Your task to perform on an android device: turn off translation in the chrome app Image 0: 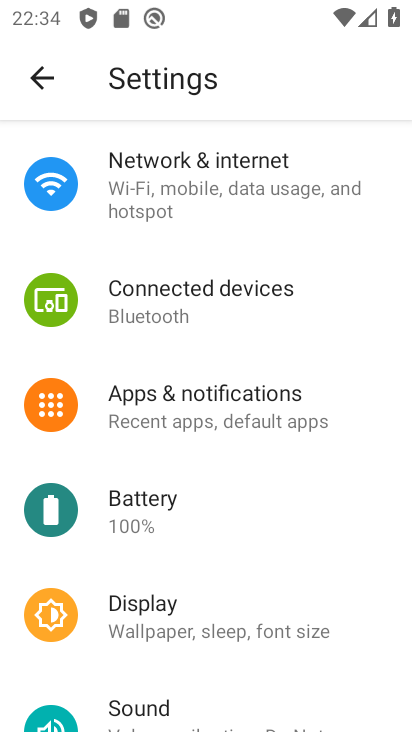
Step 0: press home button
Your task to perform on an android device: turn off translation in the chrome app Image 1: 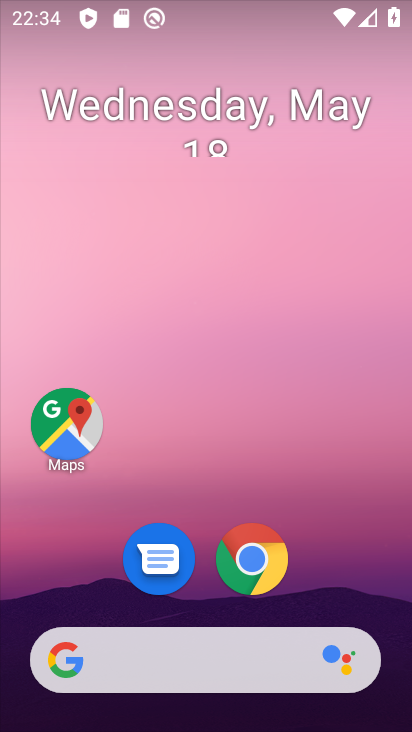
Step 1: click (258, 571)
Your task to perform on an android device: turn off translation in the chrome app Image 2: 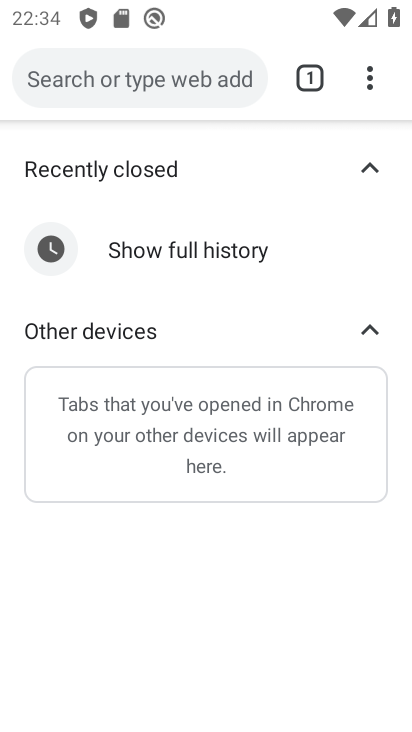
Step 2: click (365, 84)
Your task to perform on an android device: turn off translation in the chrome app Image 3: 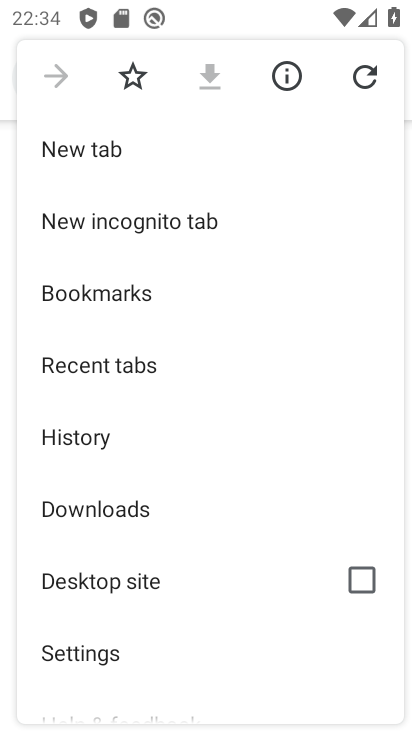
Step 3: click (115, 656)
Your task to perform on an android device: turn off translation in the chrome app Image 4: 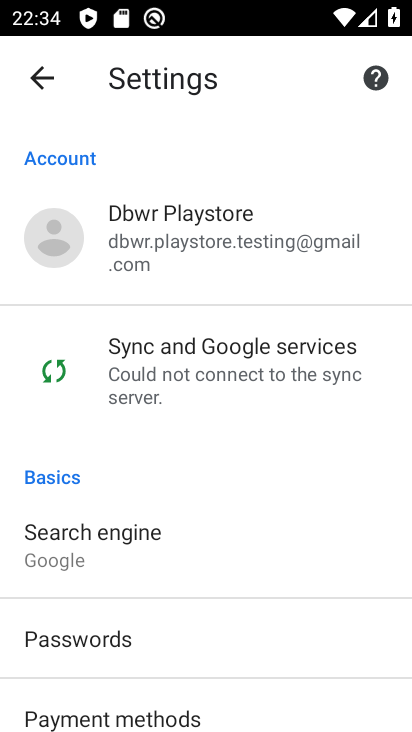
Step 4: drag from (126, 628) to (155, 404)
Your task to perform on an android device: turn off translation in the chrome app Image 5: 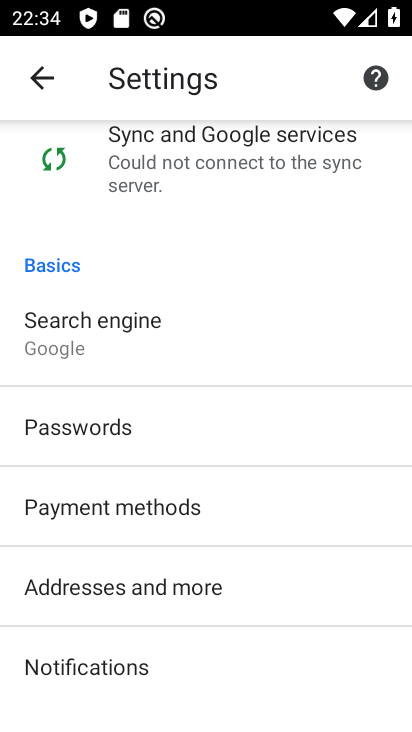
Step 5: drag from (269, 635) to (198, 150)
Your task to perform on an android device: turn off translation in the chrome app Image 6: 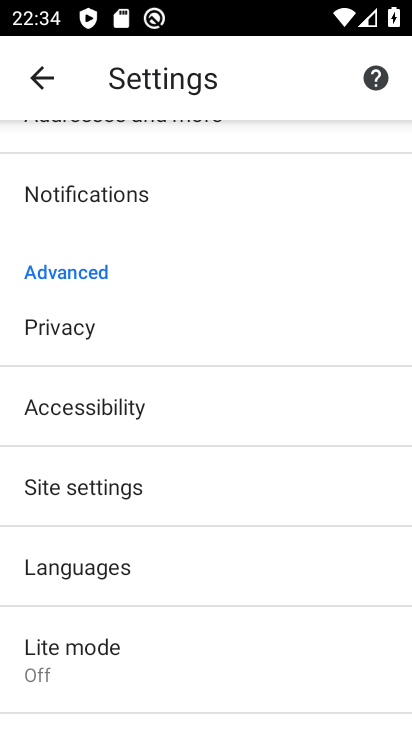
Step 6: click (99, 503)
Your task to perform on an android device: turn off translation in the chrome app Image 7: 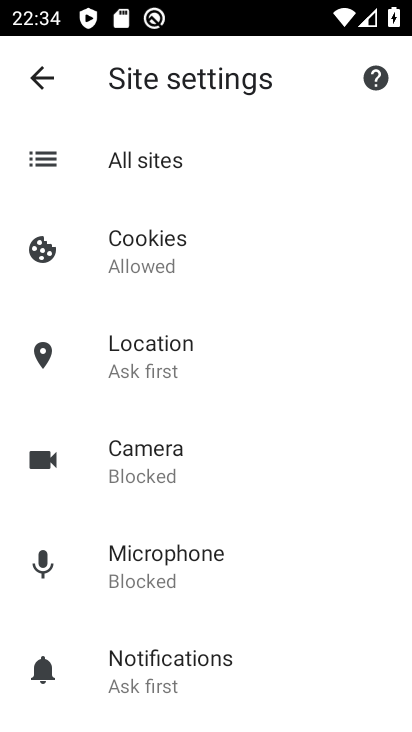
Step 7: click (186, 673)
Your task to perform on an android device: turn off translation in the chrome app Image 8: 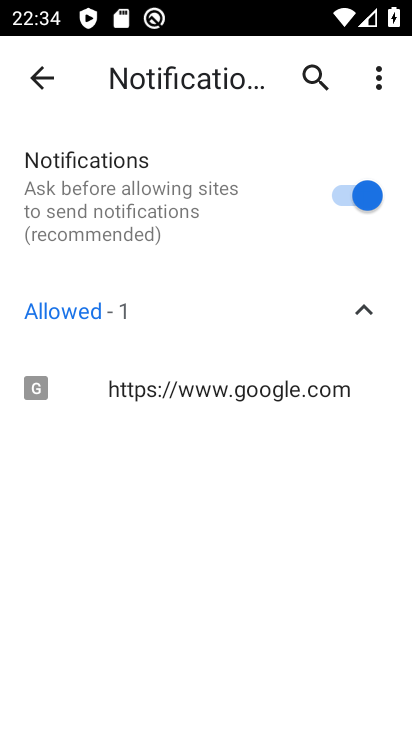
Step 8: click (337, 206)
Your task to perform on an android device: turn off translation in the chrome app Image 9: 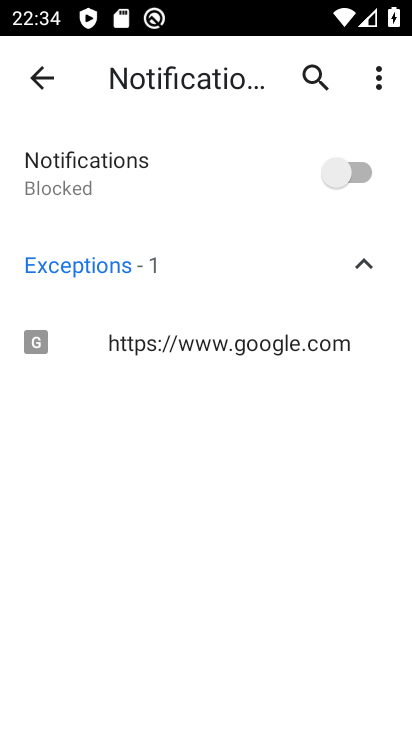
Step 9: task complete